Your task to perform on an android device: Open Google Chrome and click the shortcut for Amazon.com Image 0: 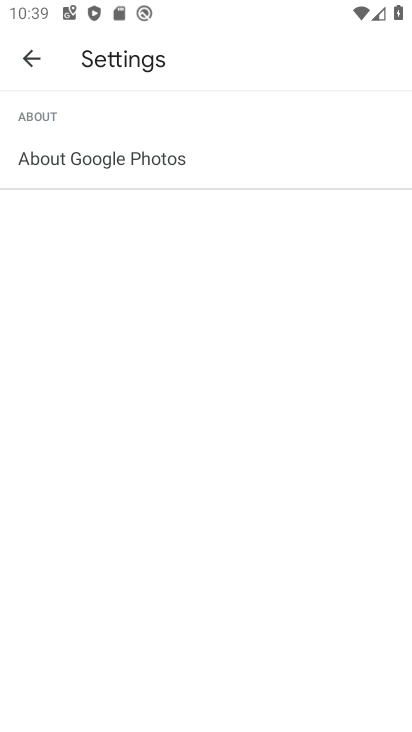
Step 0: press home button
Your task to perform on an android device: Open Google Chrome and click the shortcut for Amazon.com Image 1: 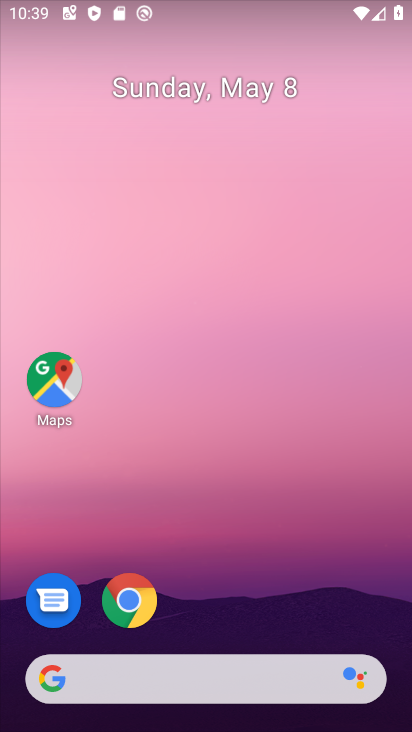
Step 1: click (133, 595)
Your task to perform on an android device: Open Google Chrome and click the shortcut for Amazon.com Image 2: 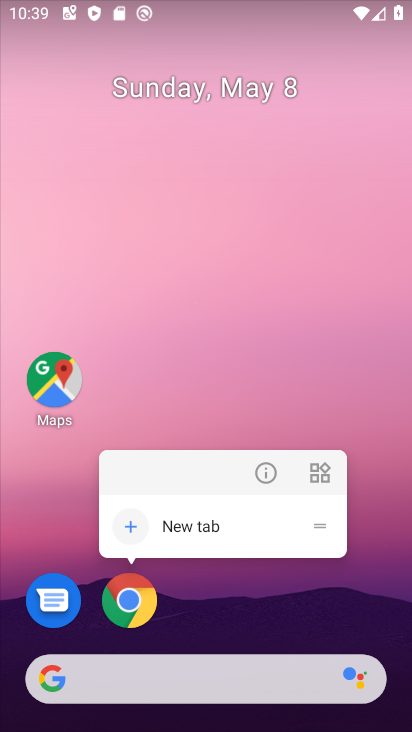
Step 2: click (273, 479)
Your task to perform on an android device: Open Google Chrome and click the shortcut for Amazon.com Image 3: 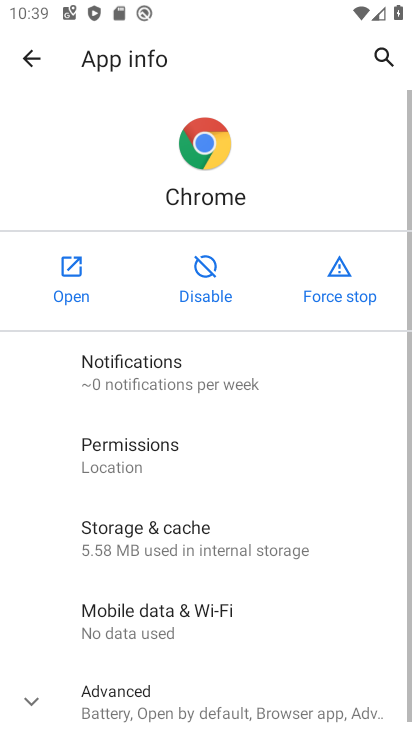
Step 3: click (67, 279)
Your task to perform on an android device: Open Google Chrome and click the shortcut for Amazon.com Image 4: 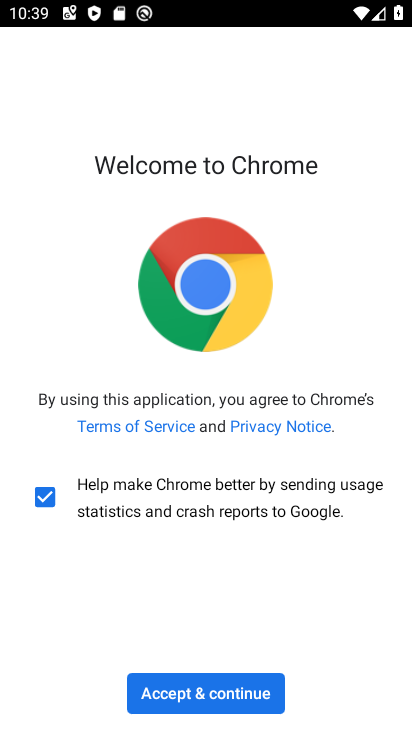
Step 4: click (239, 683)
Your task to perform on an android device: Open Google Chrome and click the shortcut for Amazon.com Image 5: 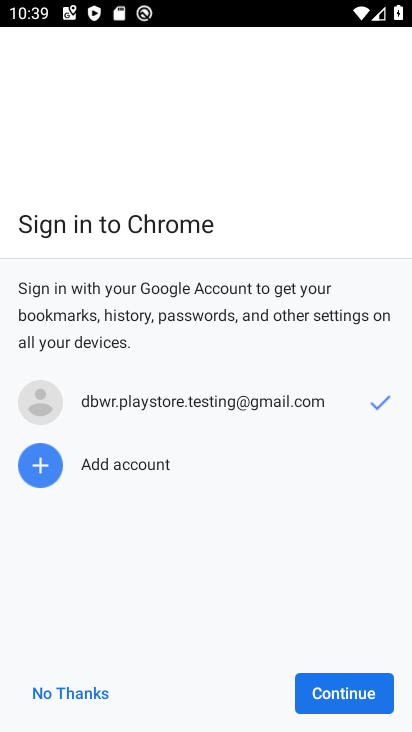
Step 5: click (83, 706)
Your task to perform on an android device: Open Google Chrome and click the shortcut for Amazon.com Image 6: 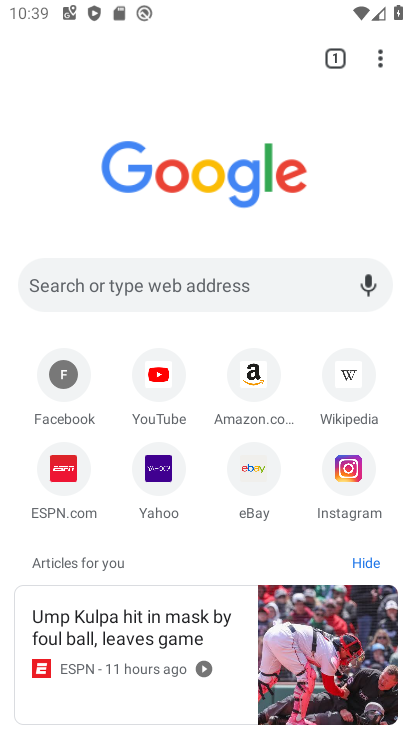
Step 6: click (269, 381)
Your task to perform on an android device: Open Google Chrome and click the shortcut for Amazon.com Image 7: 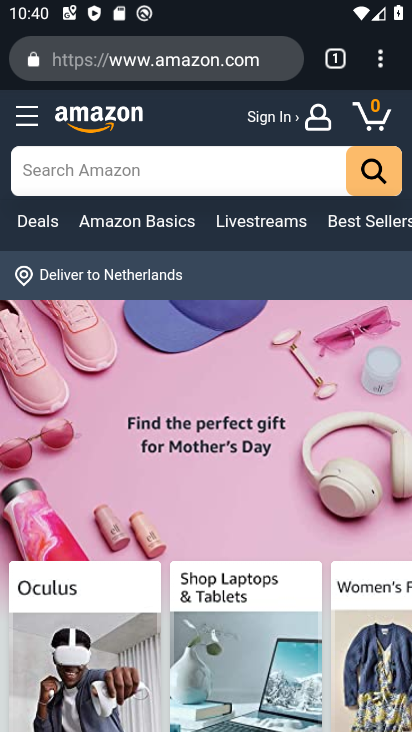
Step 7: task complete